Your task to perform on an android device: turn off data saver in the chrome app Image 0: 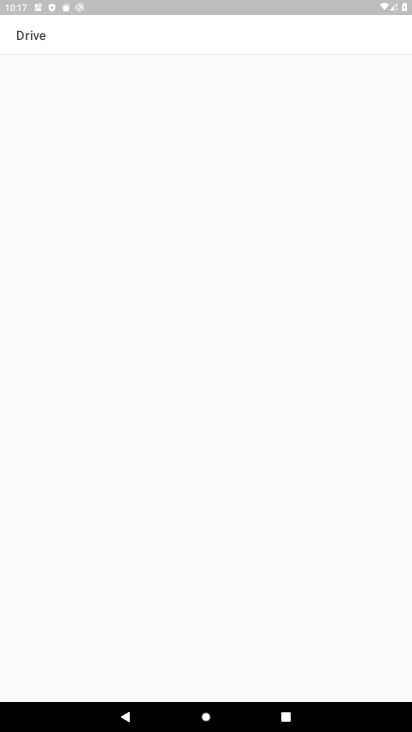
Step 0: press home button
Your task to perform on an android device: turn off data saver in the chrome app Image 1: 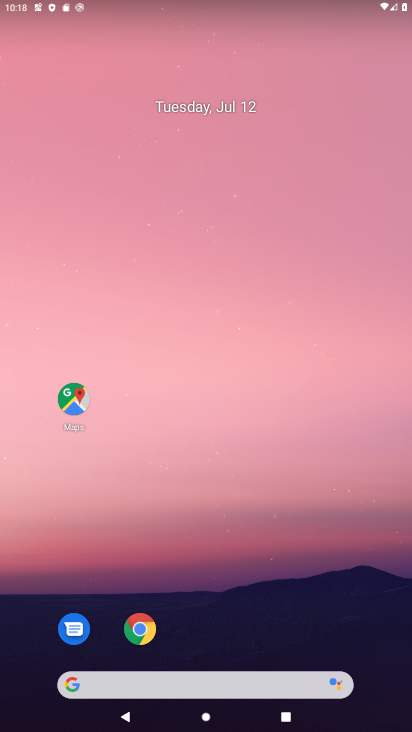
Step 1: click (137, 633)
Your task to perform on an android device: turn off data saver in the chrome app Image 2: 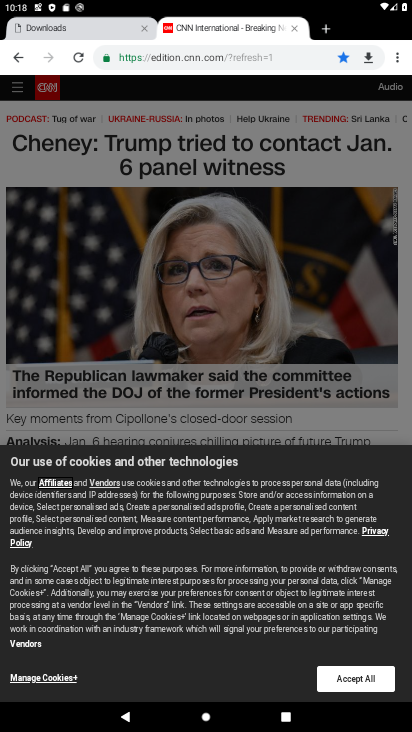
Step 2: click (403, 52)
Your task to perform on an android device: turn off data saver in the chrome app Image 3: 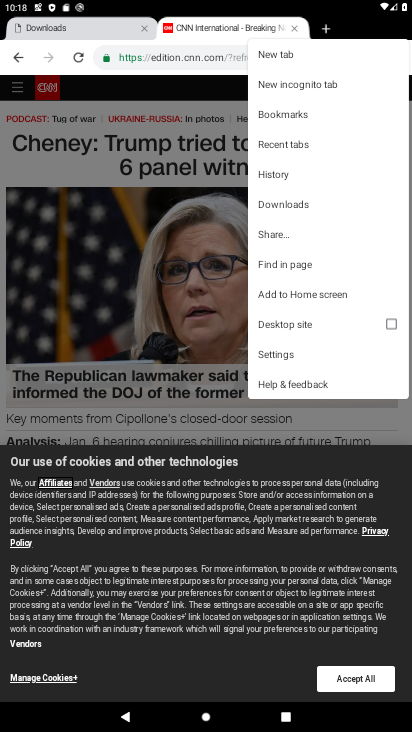
Step 3: click (311, 356)
Your task to perform on an android device: turn off data saver in the chrome app Image 4: 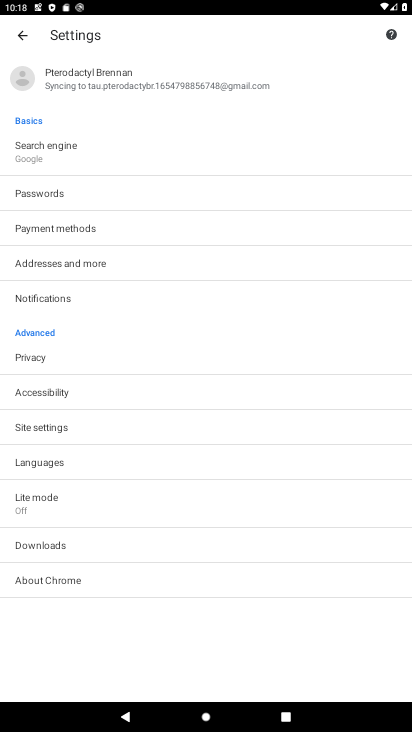
Step 4: click (98, 513)
Your task to perform on an android device: turn off data saver in the chrome app Image 5: 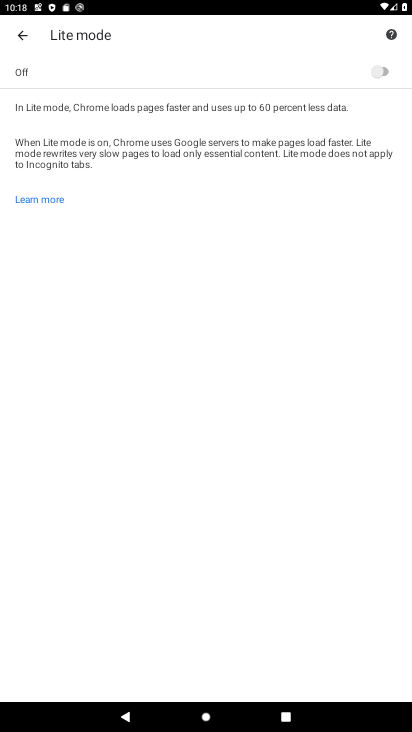
Step 5: task complete